Your task to perform on an android device: Show me popular videos on Youtube Image 0: 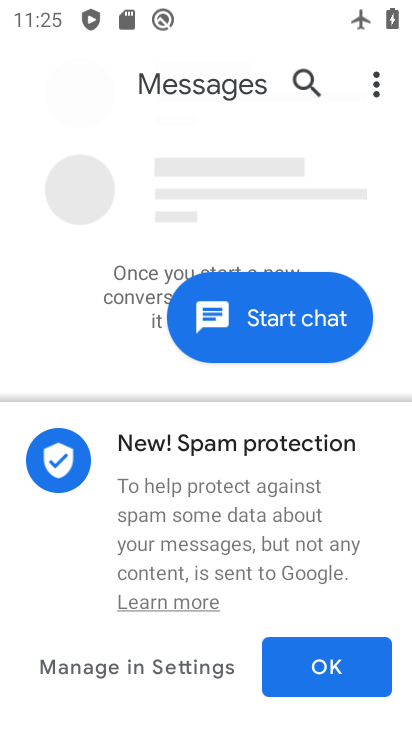
Step 0: press home button
Your task to perform on an android device: Show me popular videos on Youtube Image 1: 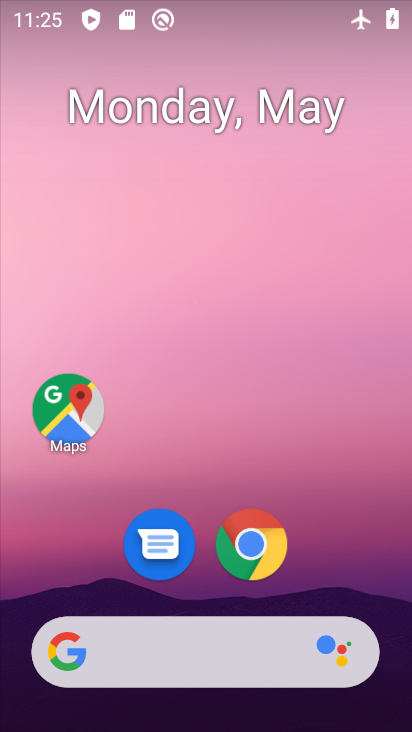
Step 1: drag from (375, 582) to (364, 199)
Your task to perform on an android device: Show me popular videos on Youtube Image 2: 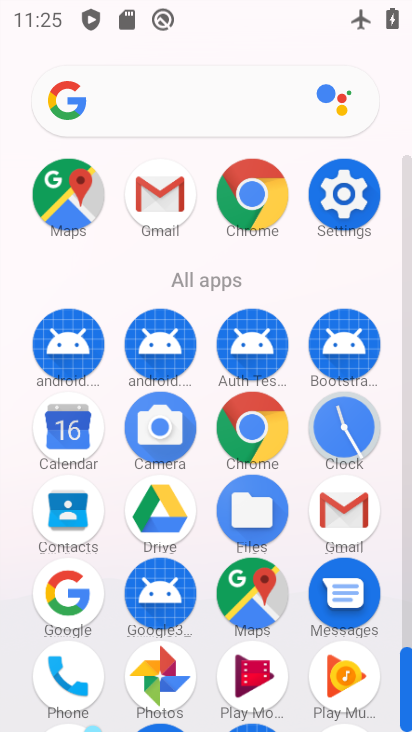
Step 2: drag from (249, 591) to (259, 237)
Your task to perform on an android device: Show me popular videos on Youtube Image 3: 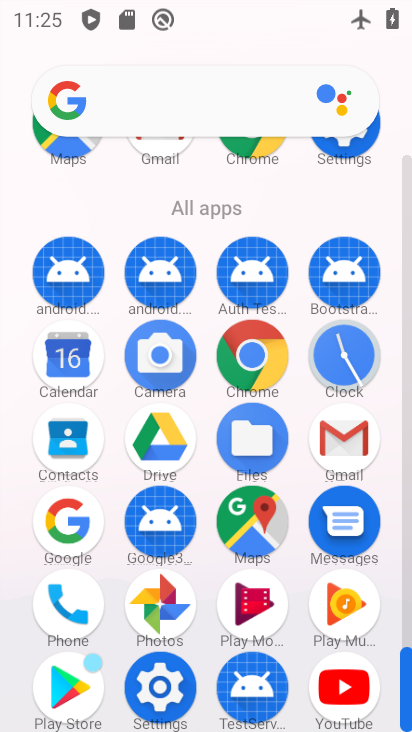
Step 3: click (326, 677)
Your task to perform on an android device: Show me popular videos on Youtube Image 4: 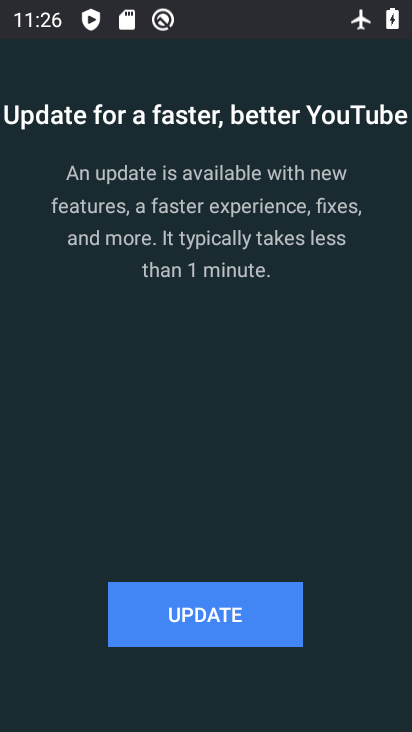
Step 4: press home button
Your task to perform on an android device: Show me popular videos on Youtube Image 5: 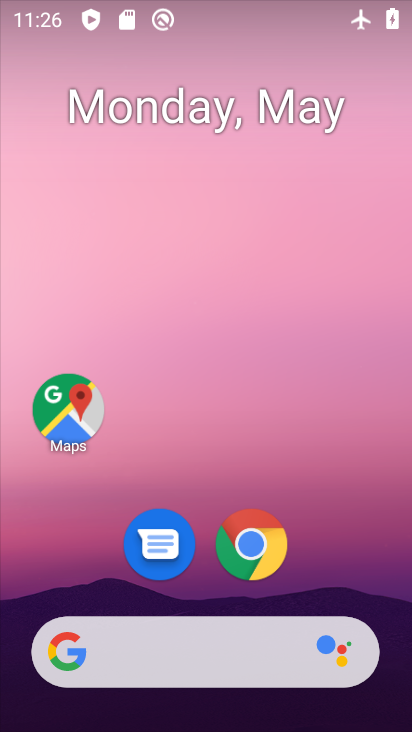
Step 5: drag from (356, 590) to (347, 236)
Your task to perform on an android device: Show me popular videos on Youtube Image 6: 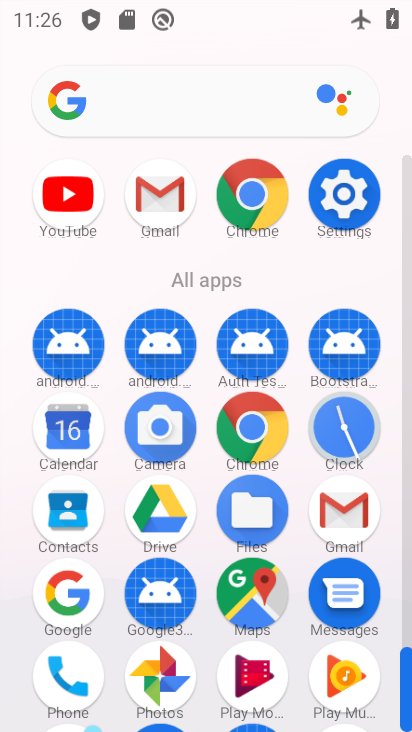
Step 6: click (63, 208)
Your task to perform on an android device: Show me popular videos on Youtube Image 7: 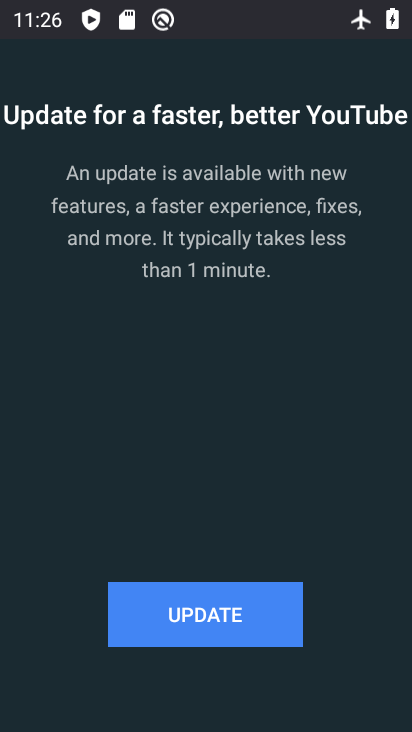
Step 7: click (260, 622)
Your task to perform on an android device: Show me popular videos on Youtube Image 8: 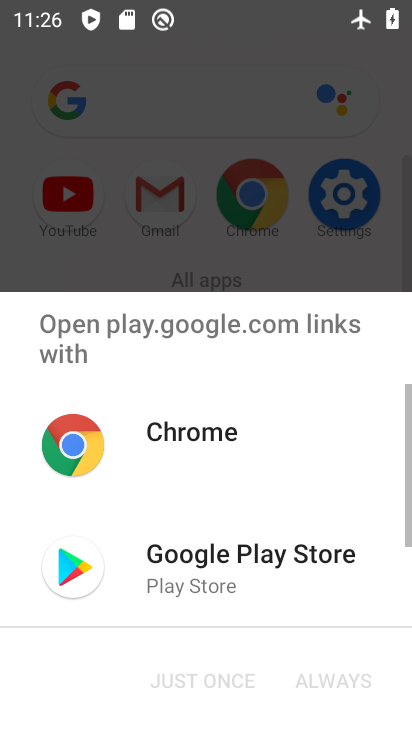
Step 8: click (212, 595)
Your task to perform on an android device: Show me popular videos on Youtube Image 9: 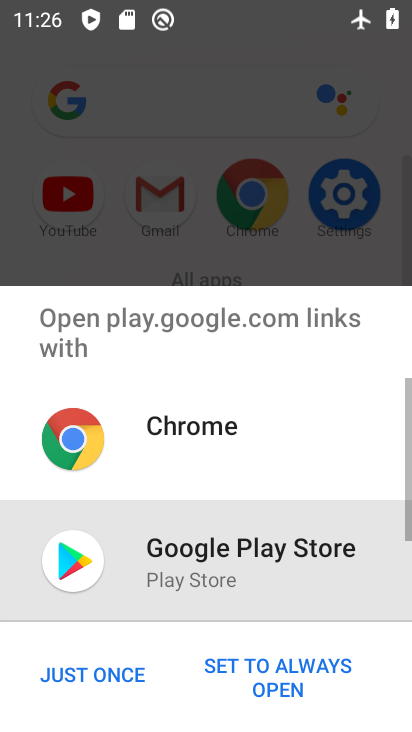
Step 9: click (30, 681)
Your task to perform on an android device: Show me popular videos on Youtube Image 10: 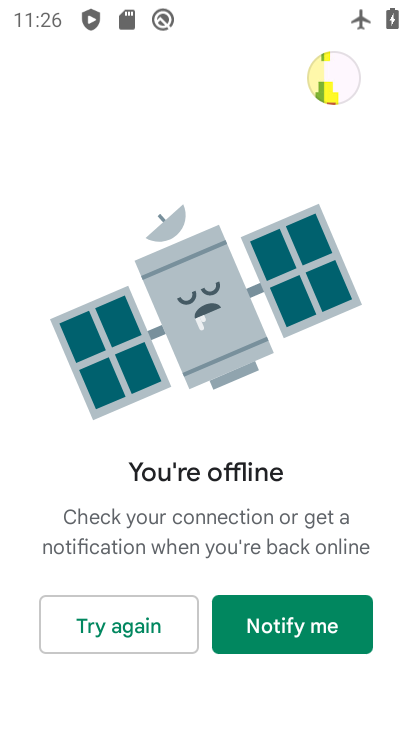
Step 10: task complete